Your task to perform on an android device: toggle wifi Image 0: 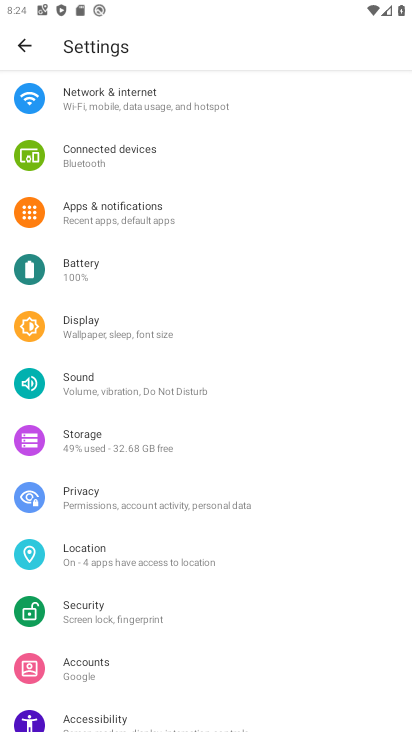
Step 0: drag from (303, 690) to (310, 253)
Your task to perform on an android device: toggle wifi Image 1: 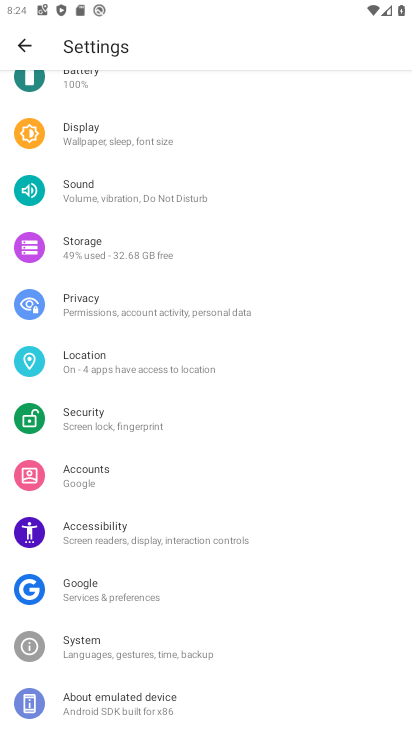
Step 1: drag from (283, 92) to (305, 542)
Your task to perform on an android device: toggle wifi Image 2: 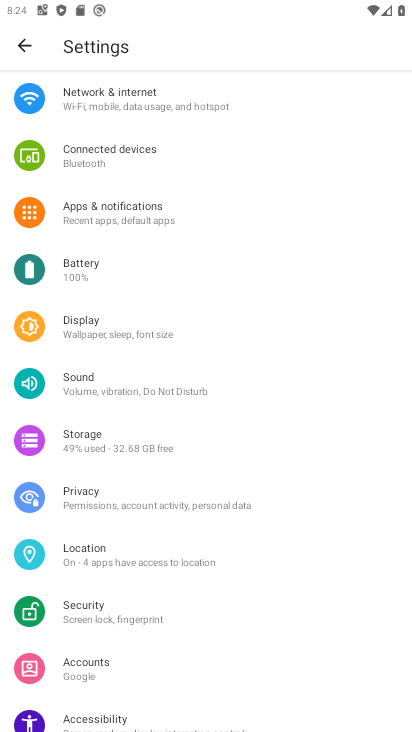
Step 2: click (101, 87)
Your task to perform on an android device: toggle wifi Image 3: 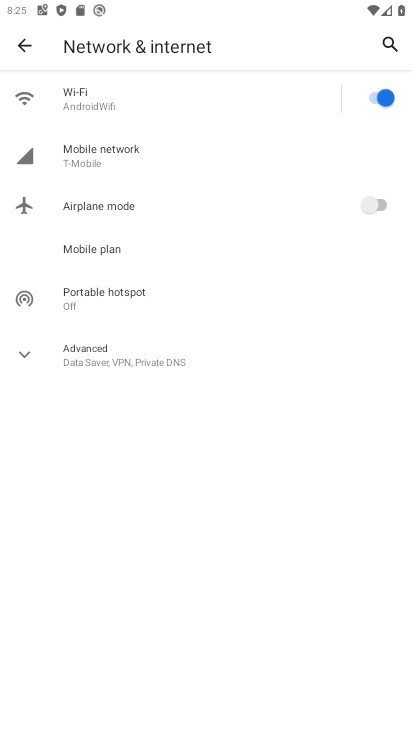
Step 3: click (376, 95)
Your task to perform on an android device: toggle wifi Image 4: 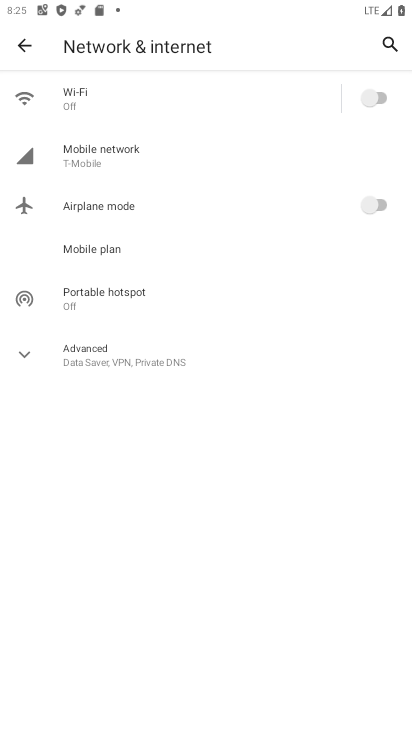
Step 4: task complete